Your task to perform on an android device: Open Wikipedia Image 0: 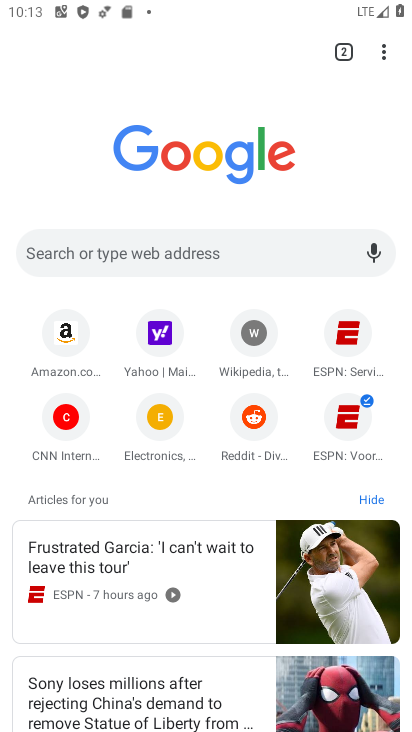
Step 0: press home button
Your task to perform on an android device: Open Wikipedia Image 1: 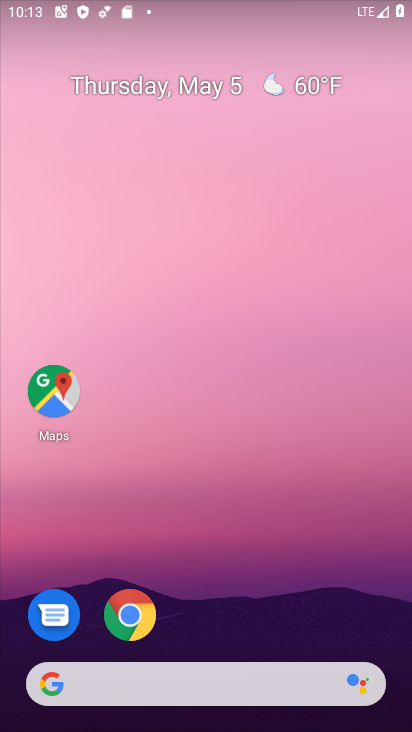
Step 1: click (132, 614)
Your task to perform on an android device: Open Wikipedia Image 2: 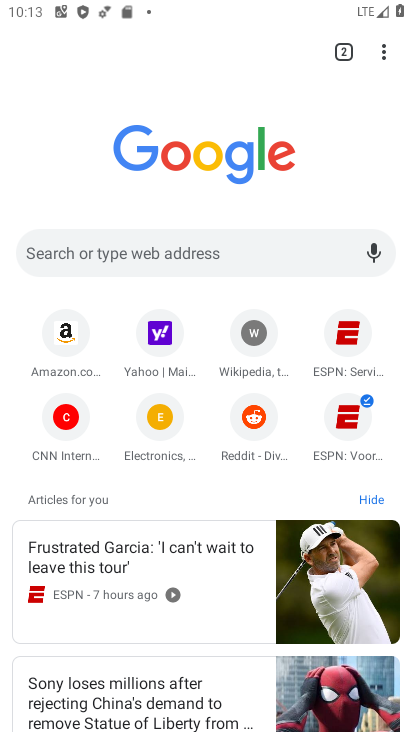
Step 2: click (251, 340)
Your task to perform on an android device: Open Wikipedia Image 3: 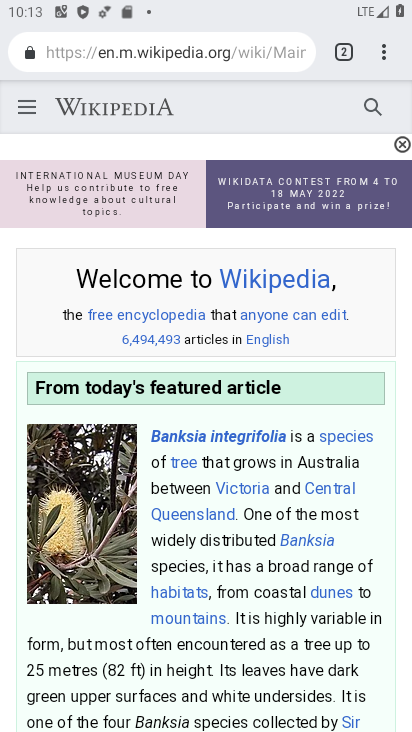
Step 3: task complete